Your task to perform on an android device: turn on priority inbox in the gmail app Image 0: 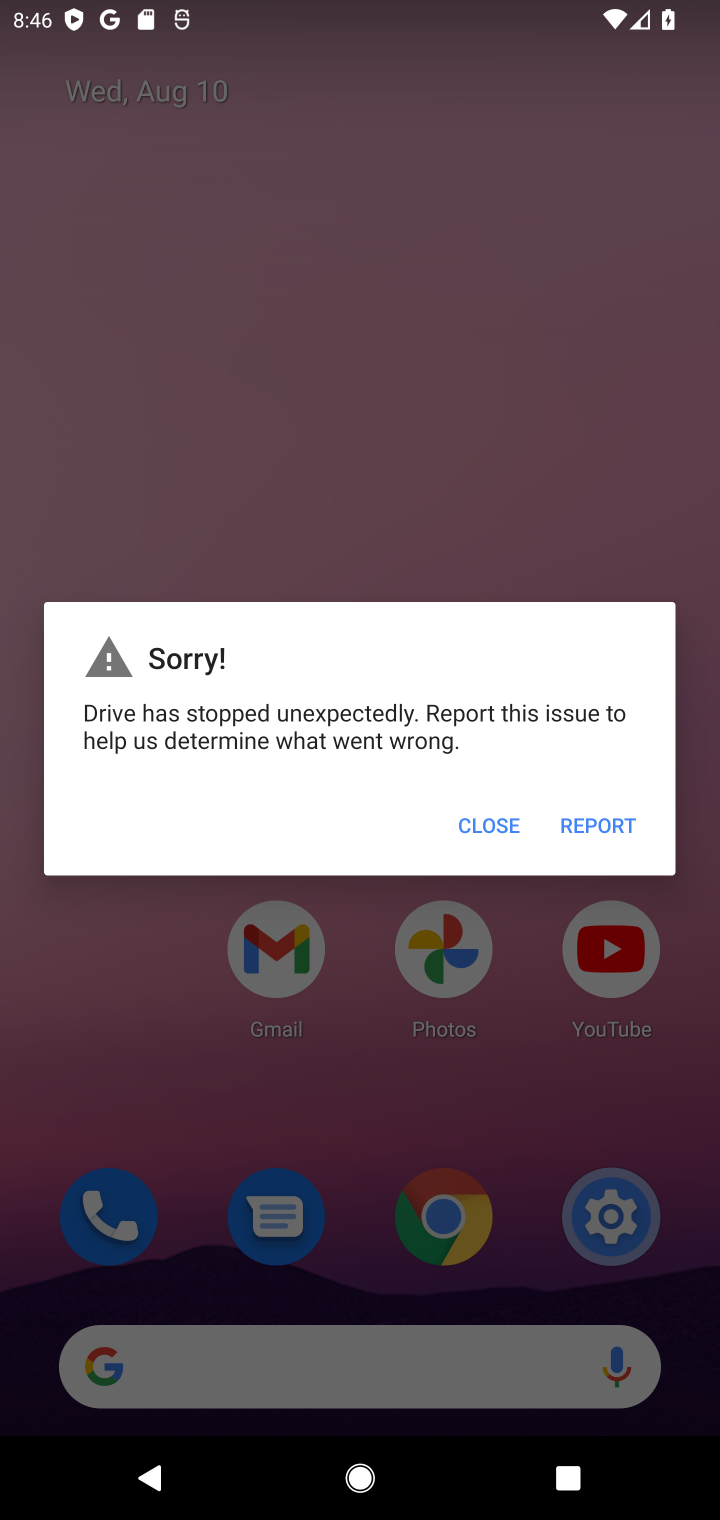
Step 0: press home button
Your task to perform on an android device: turn on priority inbox in the gmail app Image 1: 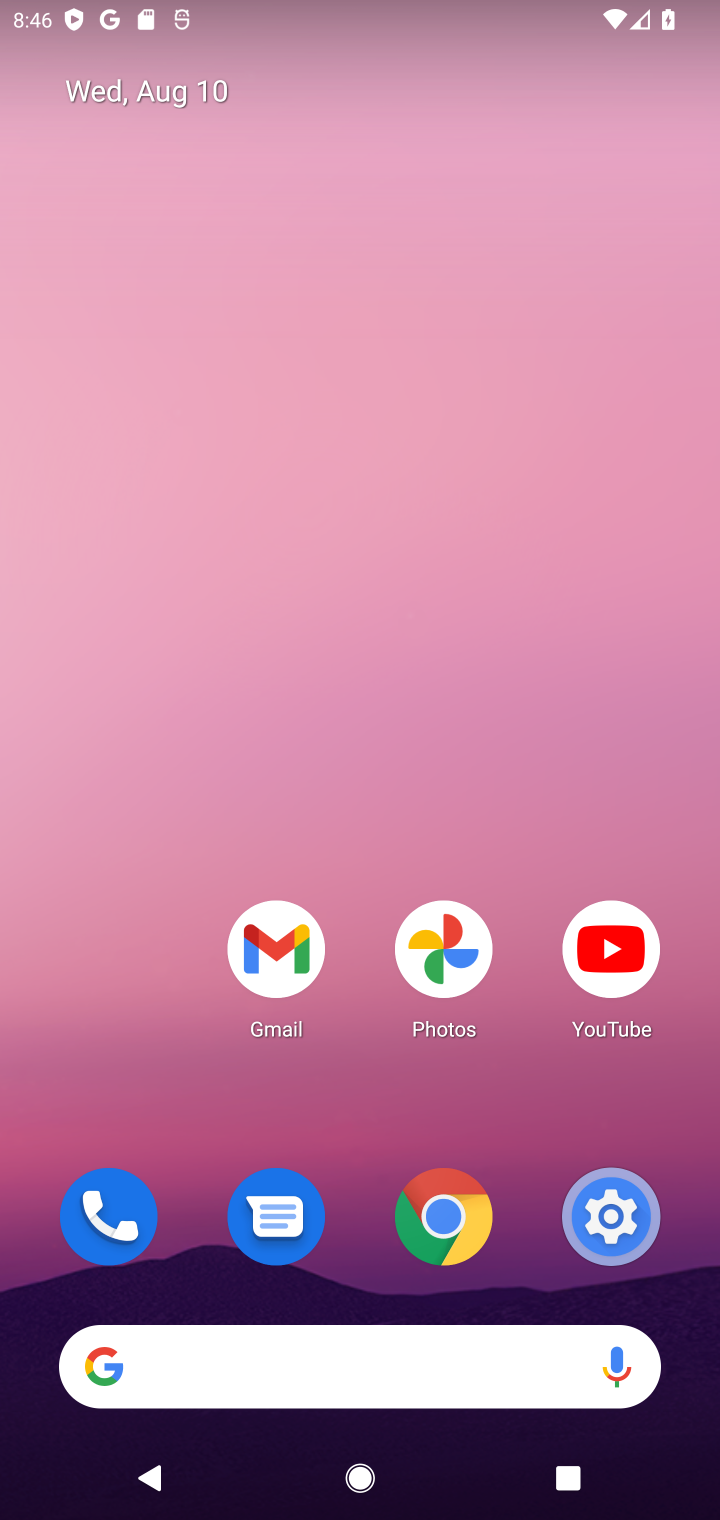
Step 1: click (269, 945)
Your task to perform on an android device: turn on priority inbox in the gmail app Image 2: 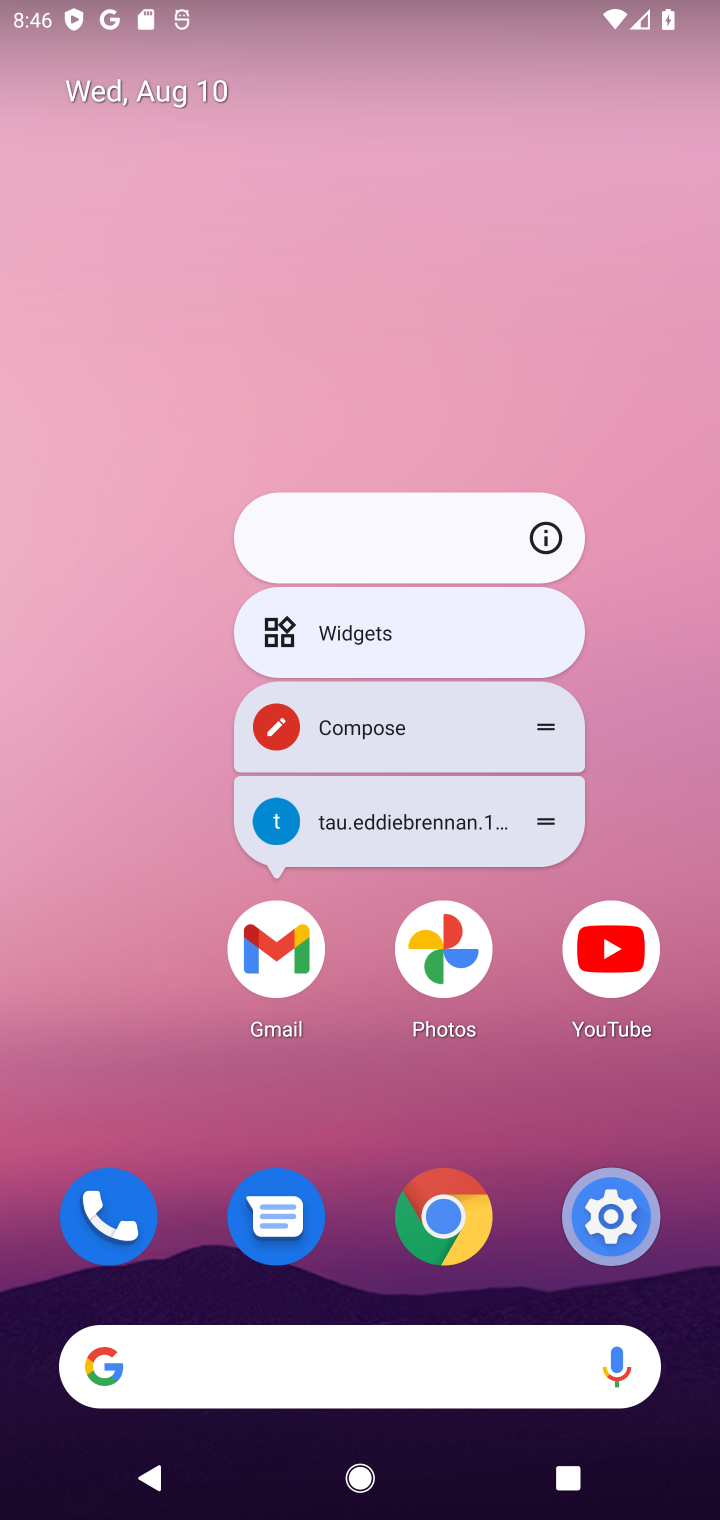
Step 2: click (263, 941)
Your task to perform on an android device: turn on priority inbox in the gmail app Image 3: 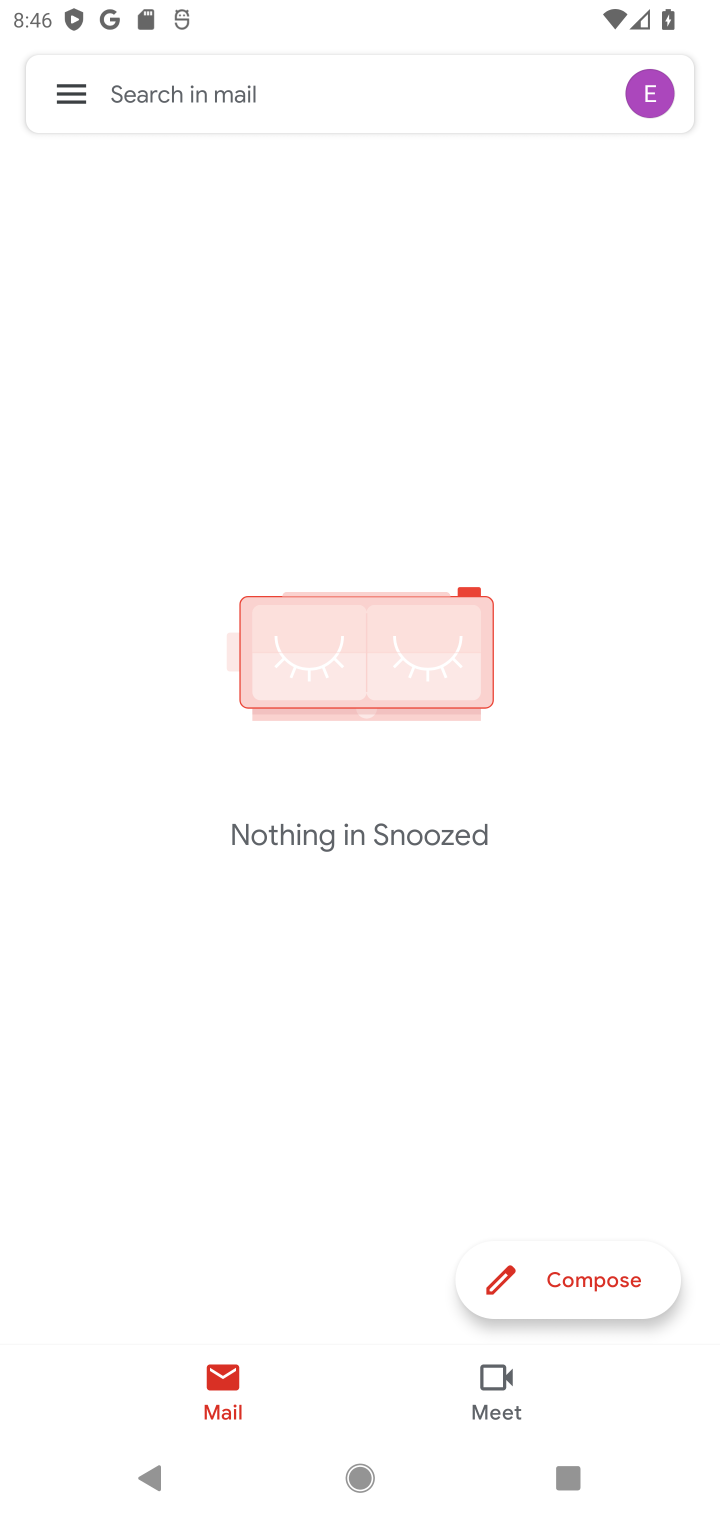
Step 3: click (80, 98)
Your task to perform on an android device: turn on priority inbox in the gmail app Image 4: 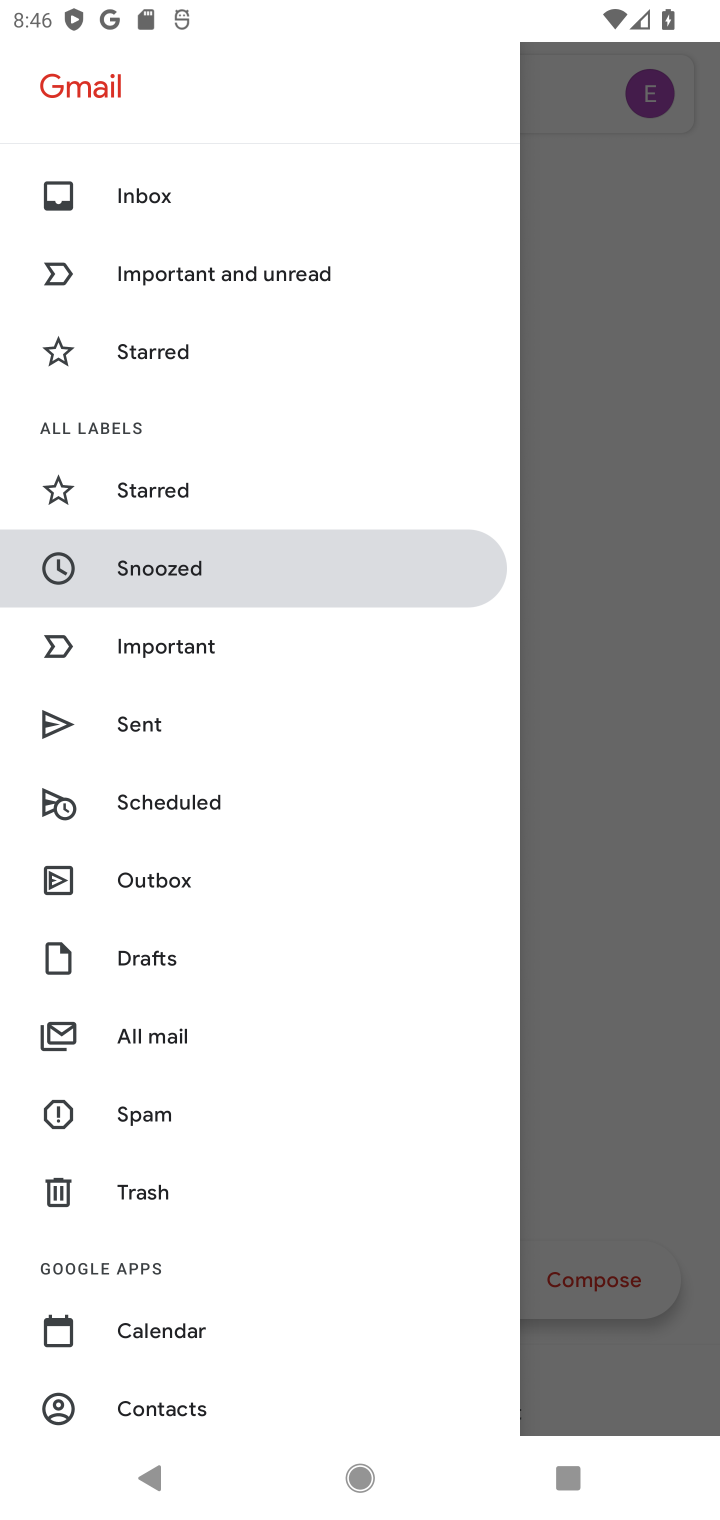
Step 4: drag from (7, 1124) to (377, 155)
Your task to perform on an android device: turn on priority inbox in the gmail app Image 5: 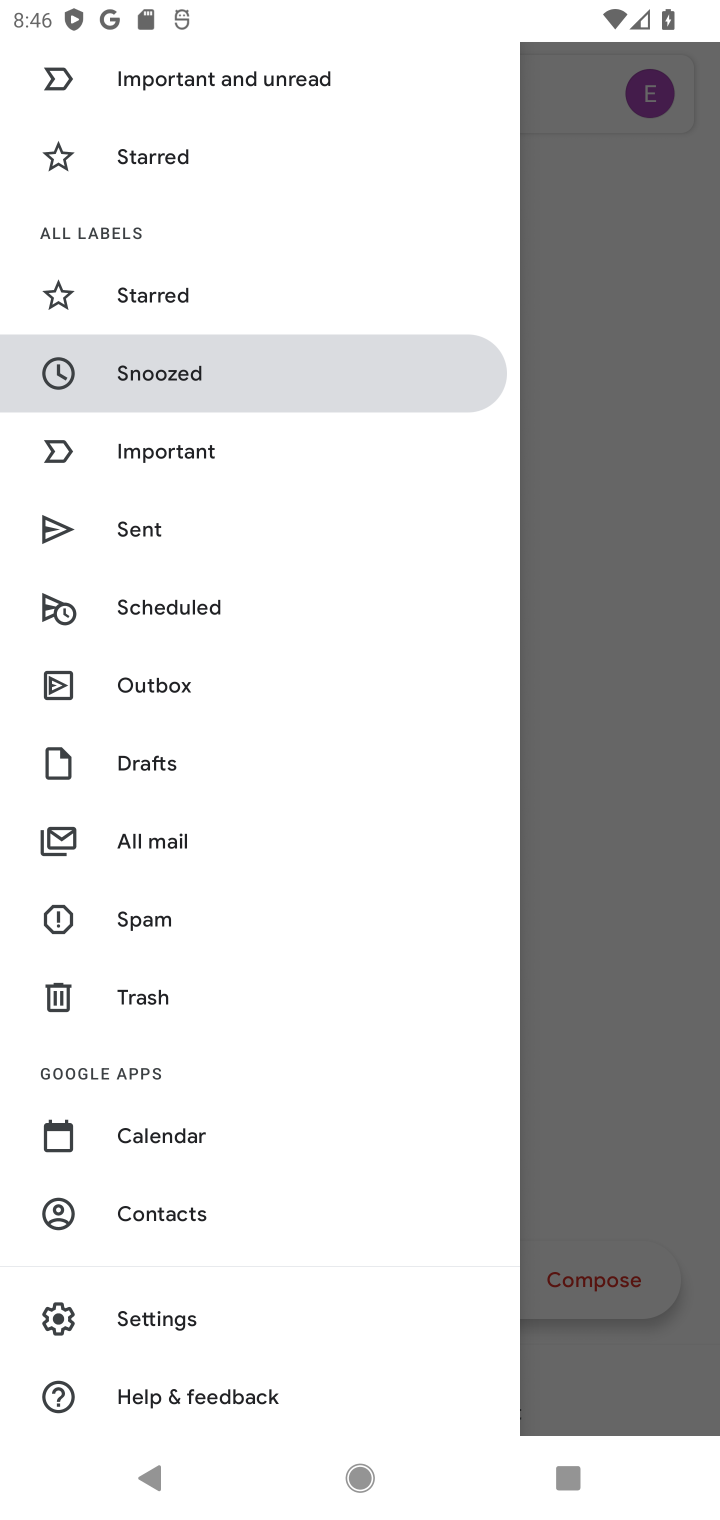
Step 5: click (152, 1317)
Your task to perform on an android device: turn on priority inbox in the gmail app Image 6: 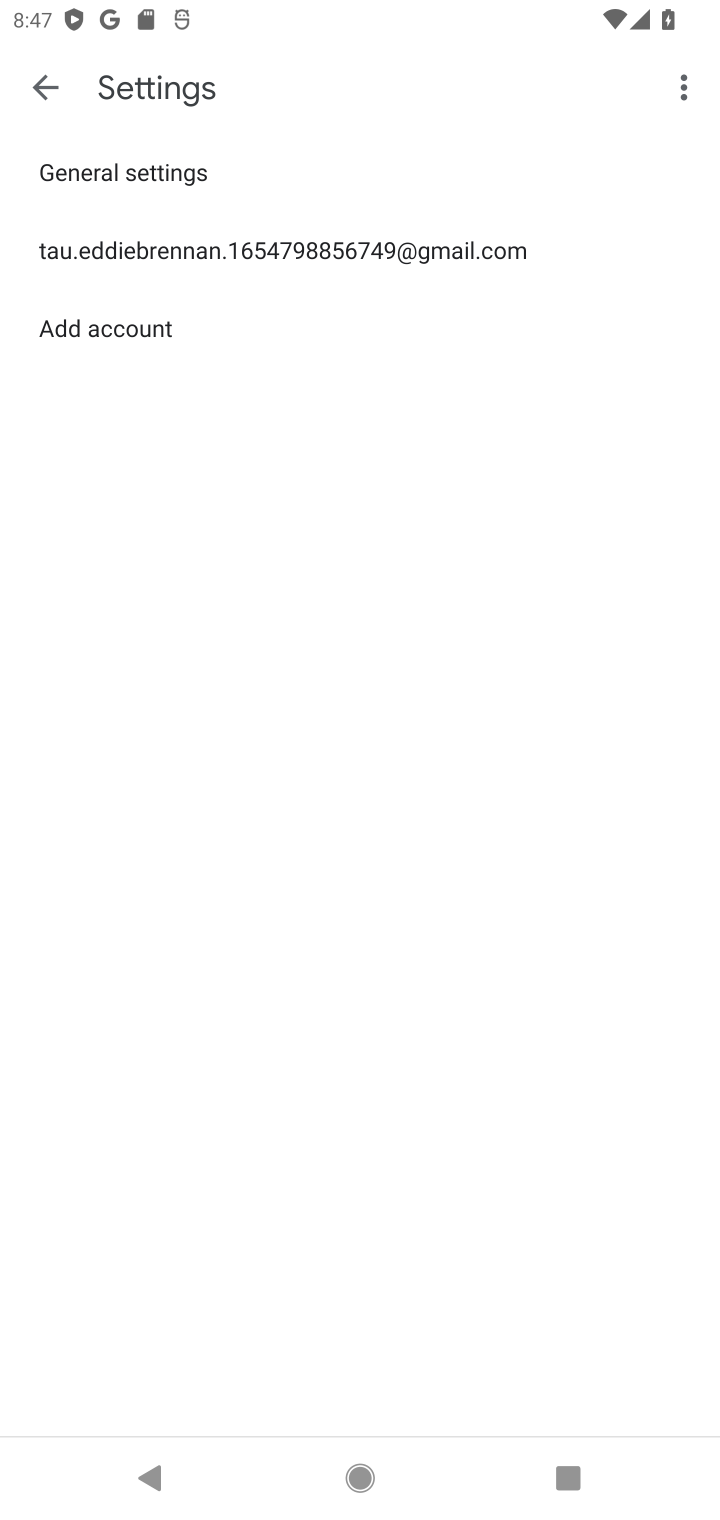
Step 6: click (199, 240)
Your task to perform on an android device: turn on priority inbox in the gmail app Image 7: 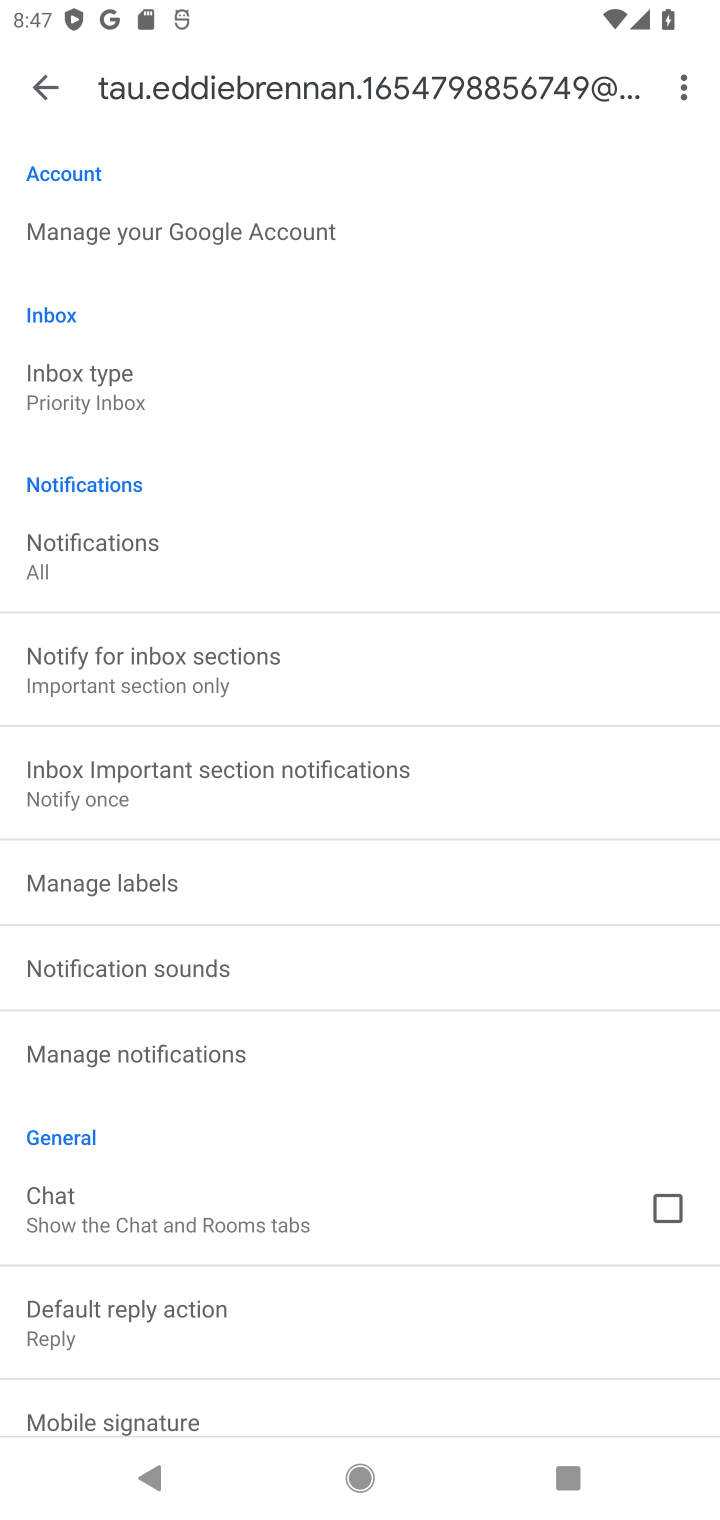
Step 7: task complete